Your task to perform on an android device: open the mobile data screen to see how much data has been used Image 0: 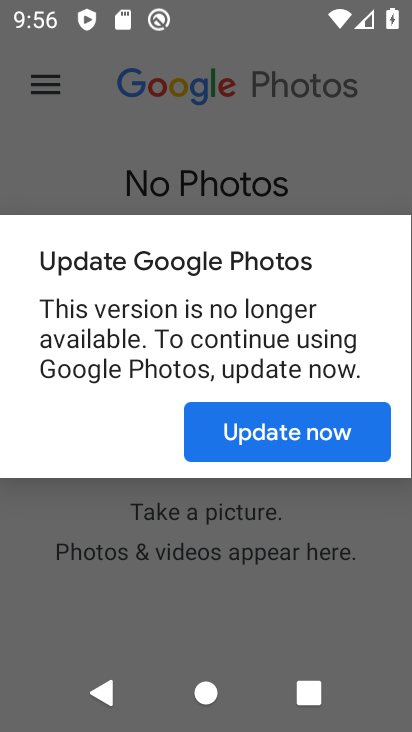
Step 0: press home button
Your task to perform on an android device: open the mobile data screen to see how much data has been used Image 1: 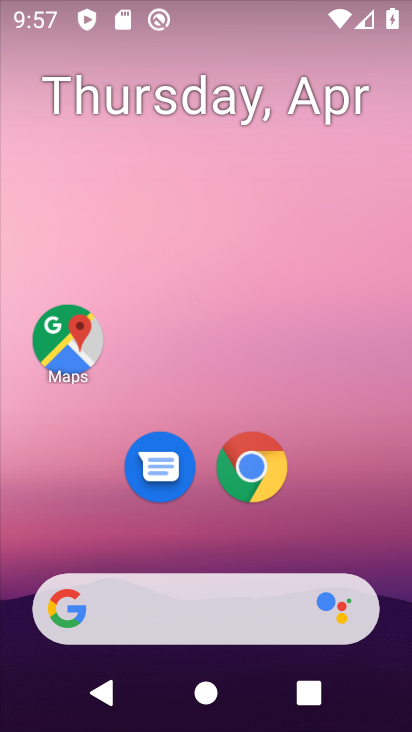
Step 1: drag from (354, 493) to (309, 257)
Your task to perform on an android device: open the mobile data screen to see how much data has been used Image 2: 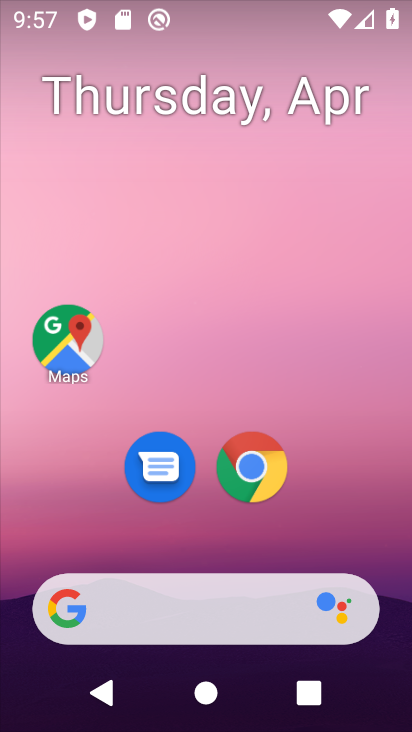
Step 2: drag from (359, 515) to (300, 240)
Your task to perform on an android device: open the mobile data screen to see how much data has been used Image 3: 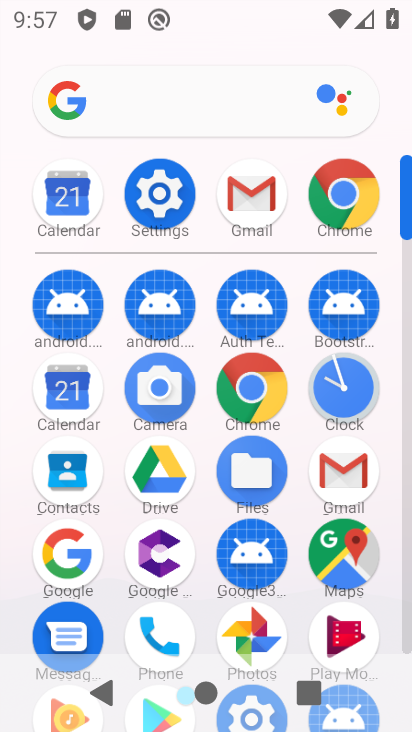
Step 3: click (145, 207)
Your task to perform on an android device: open the mobile data screen to see how much data has been used Image 4: 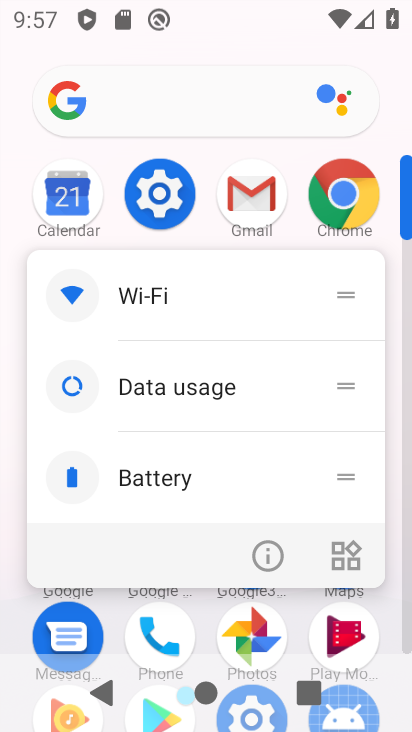
Step 4: click (164, 191)
Your task to perform on an android device: open the mobile data screen to see how much data has been used Image 5: 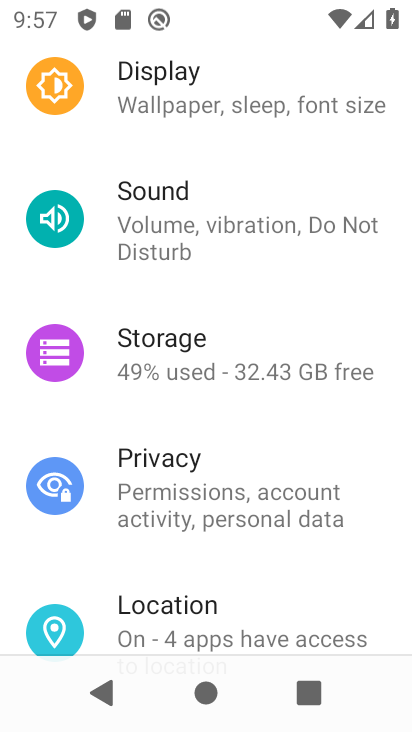
Step 5: drag from (275, 264) to (281, 679)
Your task to perform on an android device: open the mobile data screen to see how much data has been used Image 6: 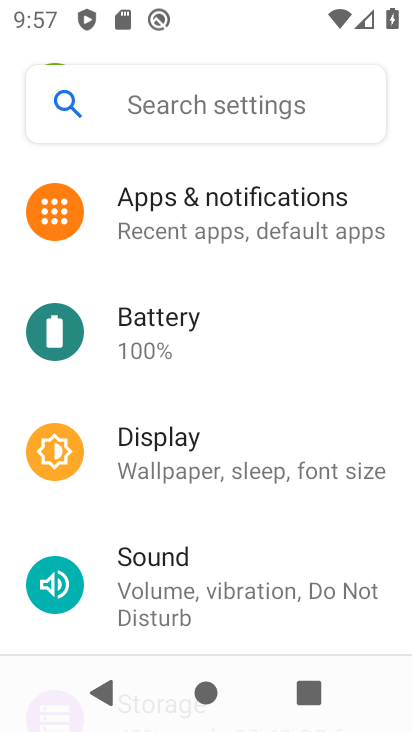
Step 6: drag from (302, 257) to (302, 664)
Your task to perform on an android device: open the mobile data screen to see how much data has been used Image 7: 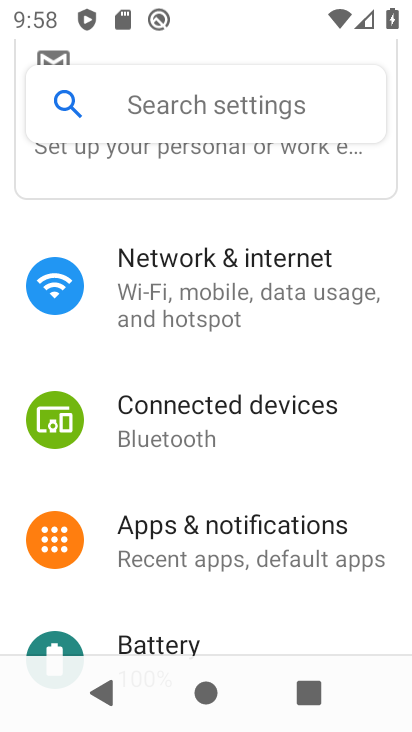
Step 7: click (161, 263)
Your task to perform on an android device: open the mobile data screen to see how much data has been used Image 8: 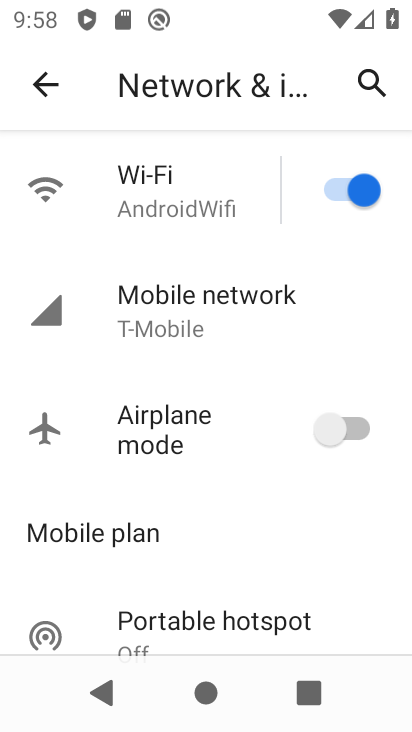
Step 8: click (208, 305)
Your task to perform on an android device: open the mobile data screen to see how much data has been used Image 9: 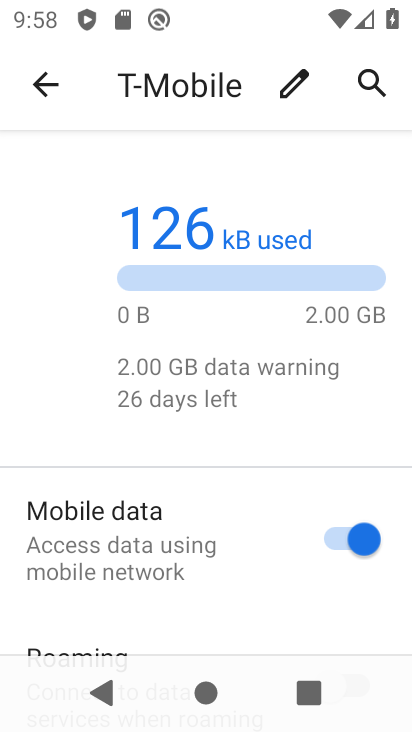
Step 9: task complete